Your task to perform on an android device: Go to CNN.com Image 0: 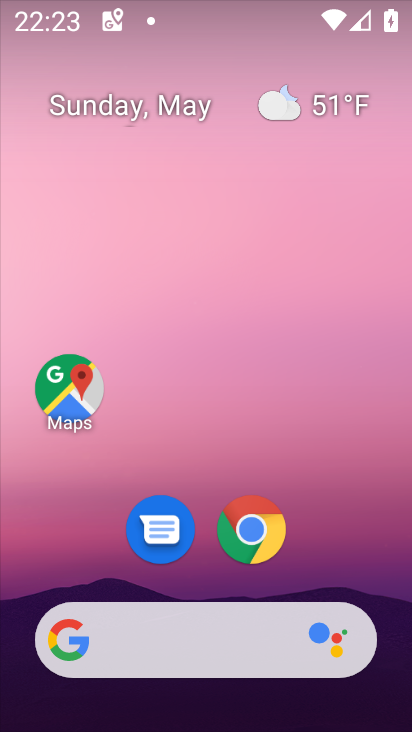
Step 0: drag from (238, 615) to (242, 56)
Your task to perform on an android device: Go to CNN.com Image 1: 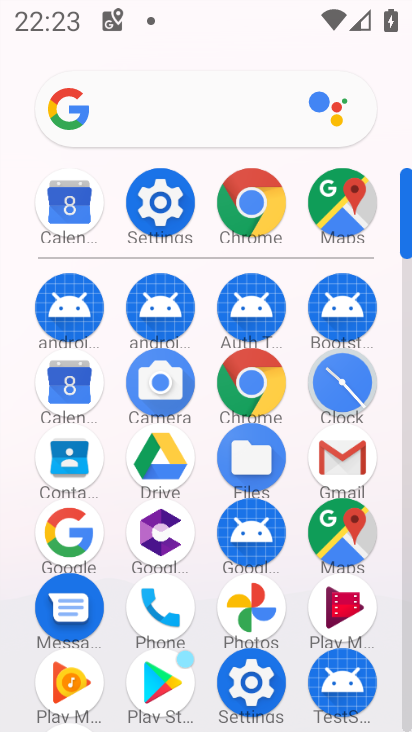
Step 1: click (244, 371)
Your task to perform on an android device: Go to CNN.com Image 2: 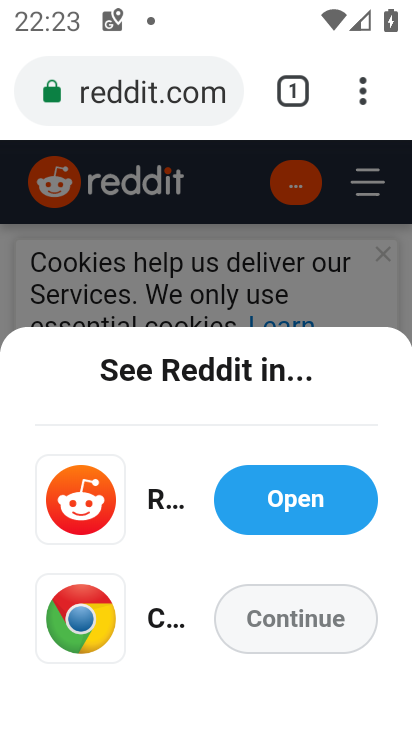
Step 2: click (117, 111)
Your task to perform on an android device: Go to CNN.com Image 3: 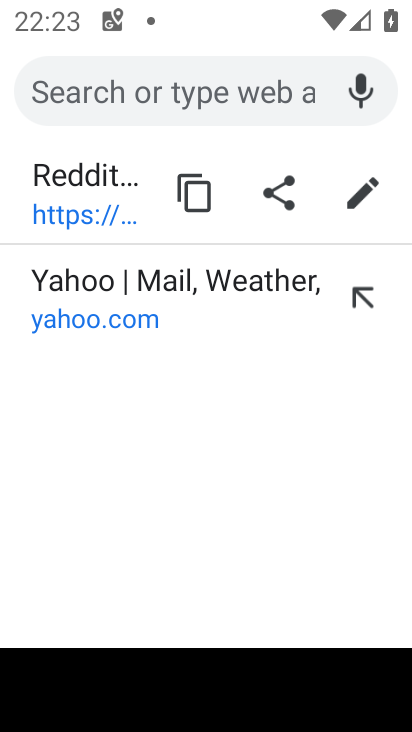
Step 3: type "cnn.com"
Your task to perform on an android device: Go to CNN.com Image 4: 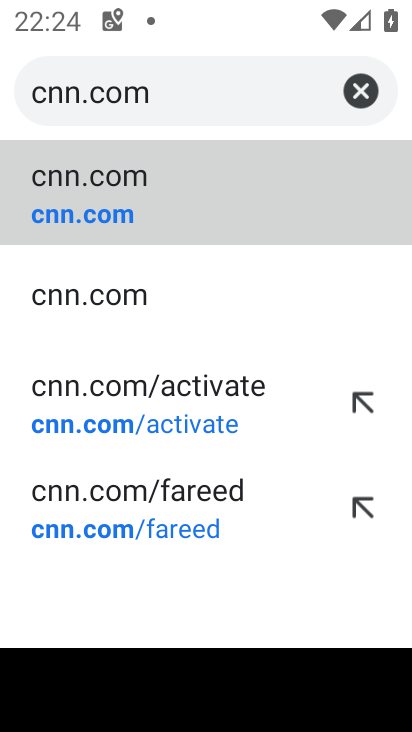
Step 4: click (194, 211)
Your task to perform on an android device: Go to CNN.com Image 5: 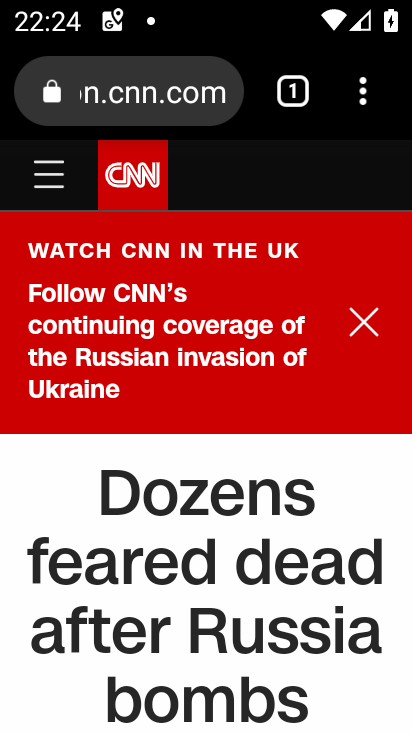
Step 5: task complete